Your task to perform on an android device: Open Google Image 0: 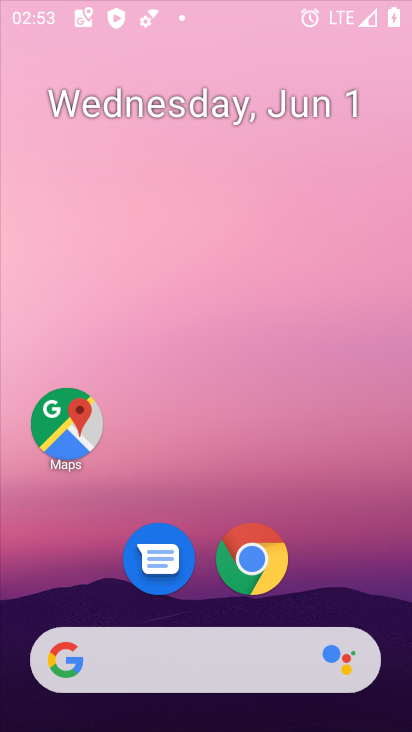
Step 0: press home button
Your task to perform on an android device: Open Google Image 1: 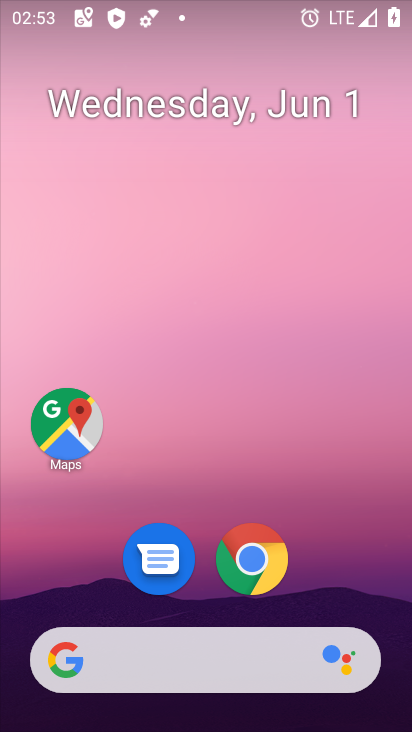
Step 1: click (66, 651)
Your task to perform on an android device: Open Google Image 2: 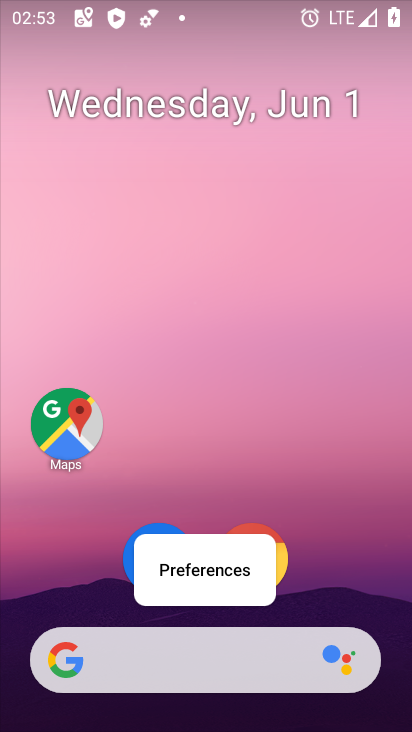
Step 2: click (69, 666)
Your task to perform on an android device: Open Google Image 3: 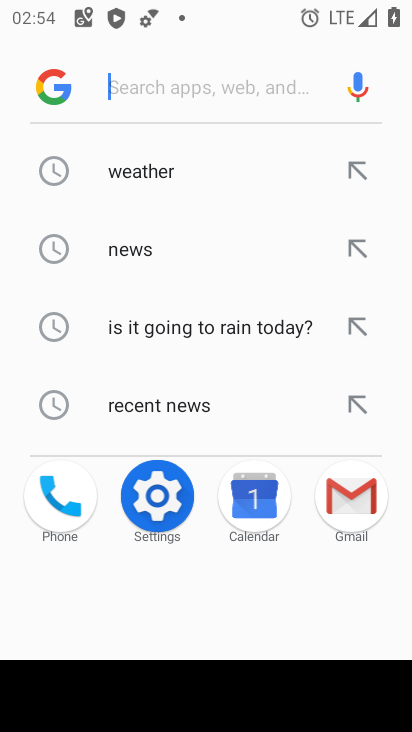
Step 3: task complete